Your task to perform on an android device: Go to calendar. Show me events next week Image 0: 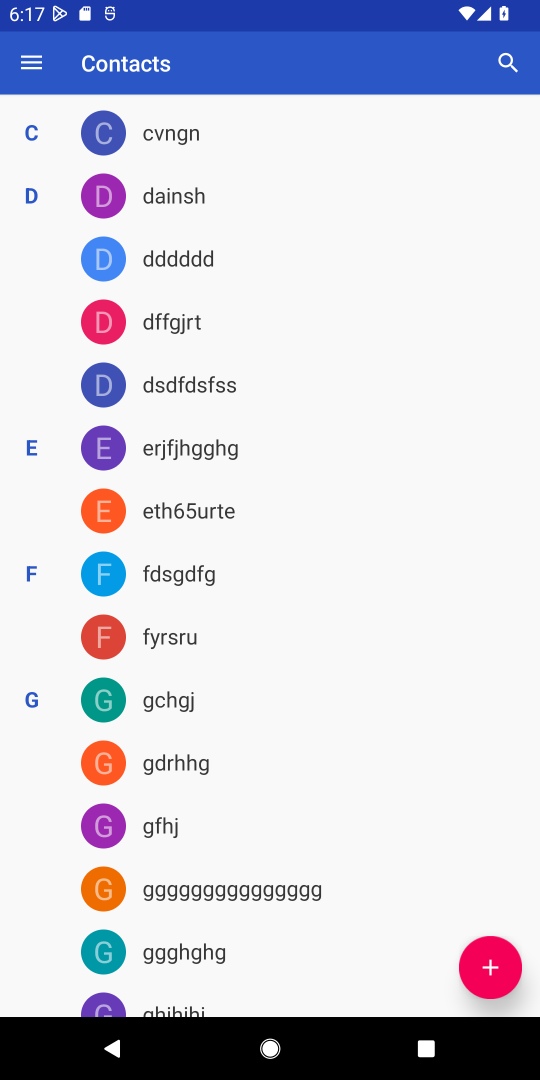
Step 0: press home button
Your task to perform on an android device: Go to calendar. Show me events next week Image 1: 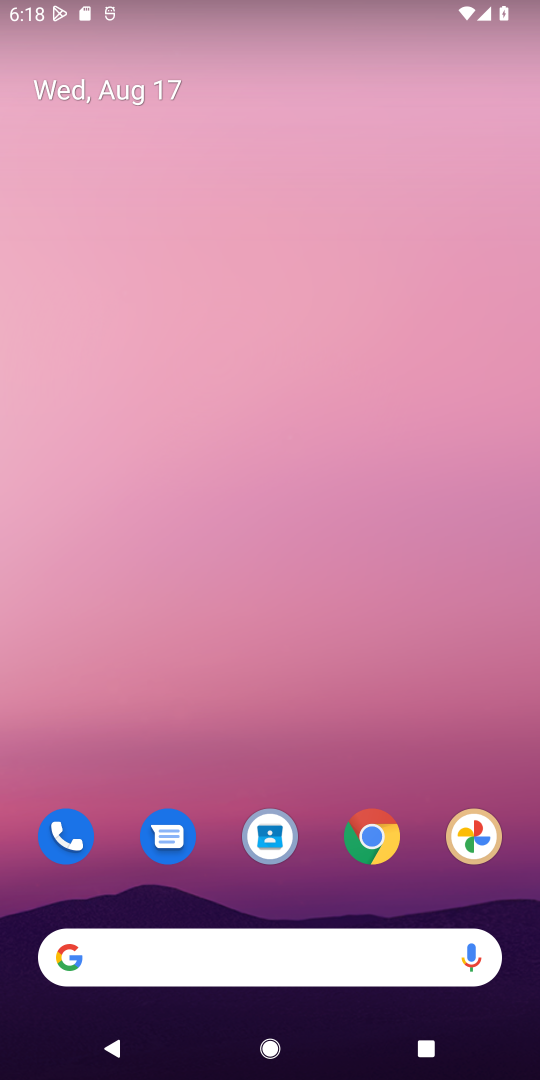
Step 1: task complete